Your task to perform on an android device: Search for a new lawnmower on Lowes.com Image 0: 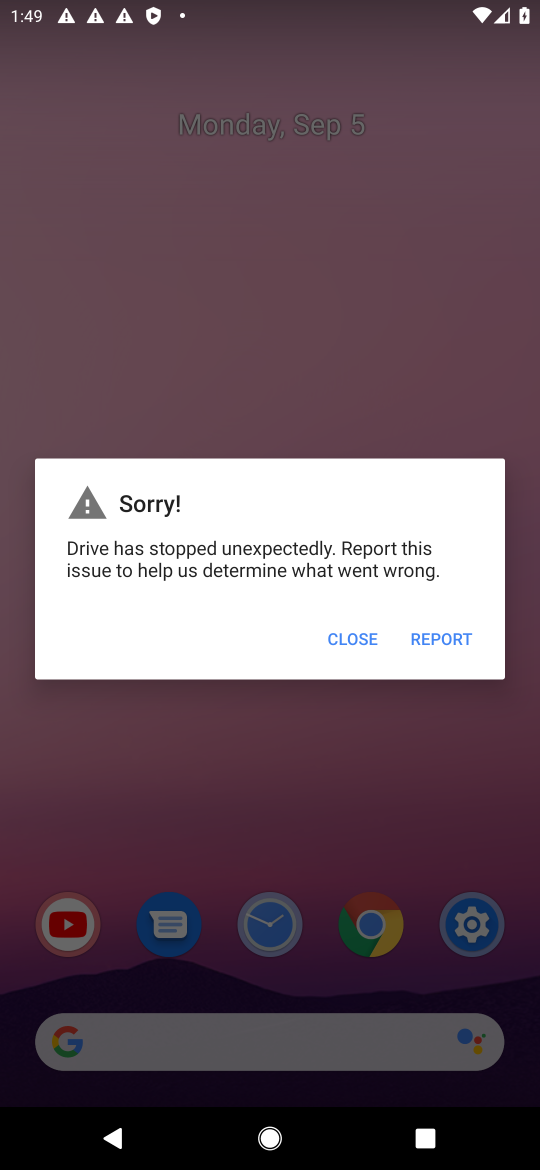
Step 0: click (348, 645)
Your task to perform on an android device: Search for a new lawnmower on Lowes.com Image 1: 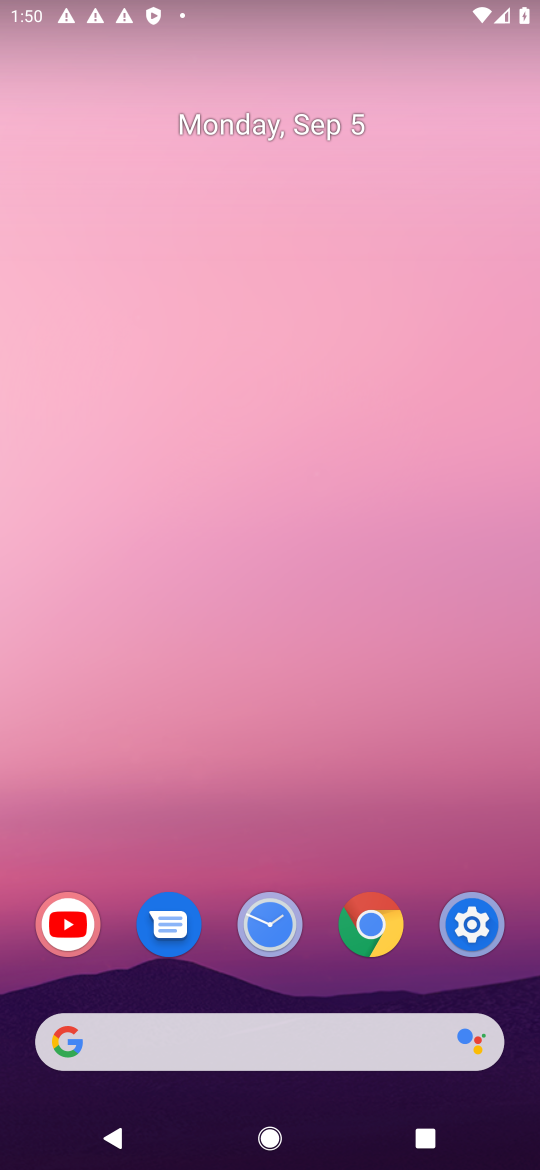
Step 1: drag from (331, 939) to (340, 119)
Your task to perform on an android device: Search for a new lawnmower on Lowes.com Image 2: 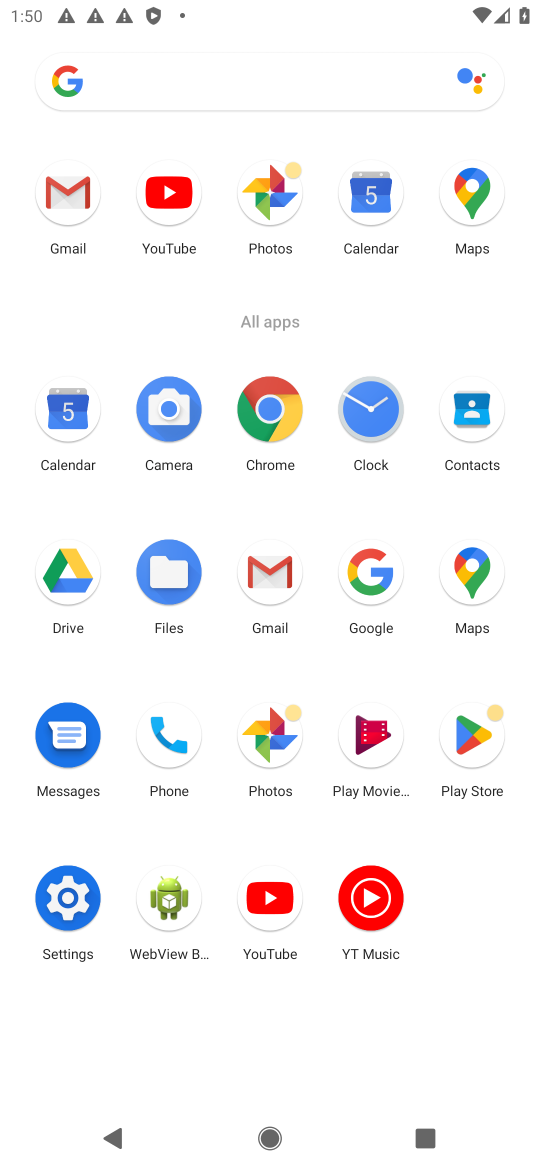
Step 2: click (252, 435)
Your task to perform on an android device: Search for a new lawnmower on Lowes.com Image 3: 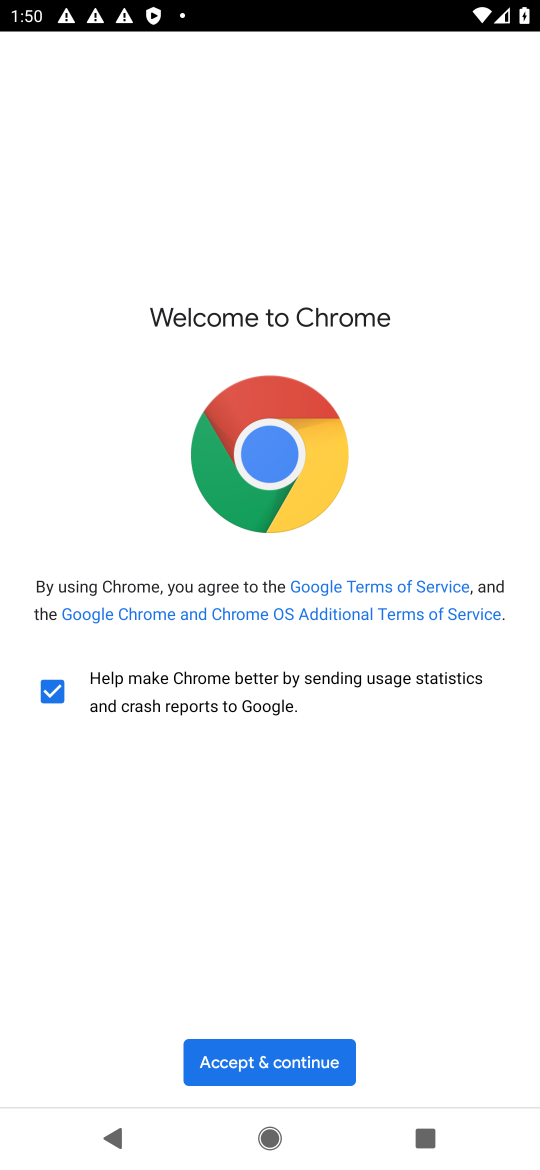
Step 3: click (261, 1071)
Your task to perform on an android device: Search for a new lawnmower on Lowes.com Image 4: 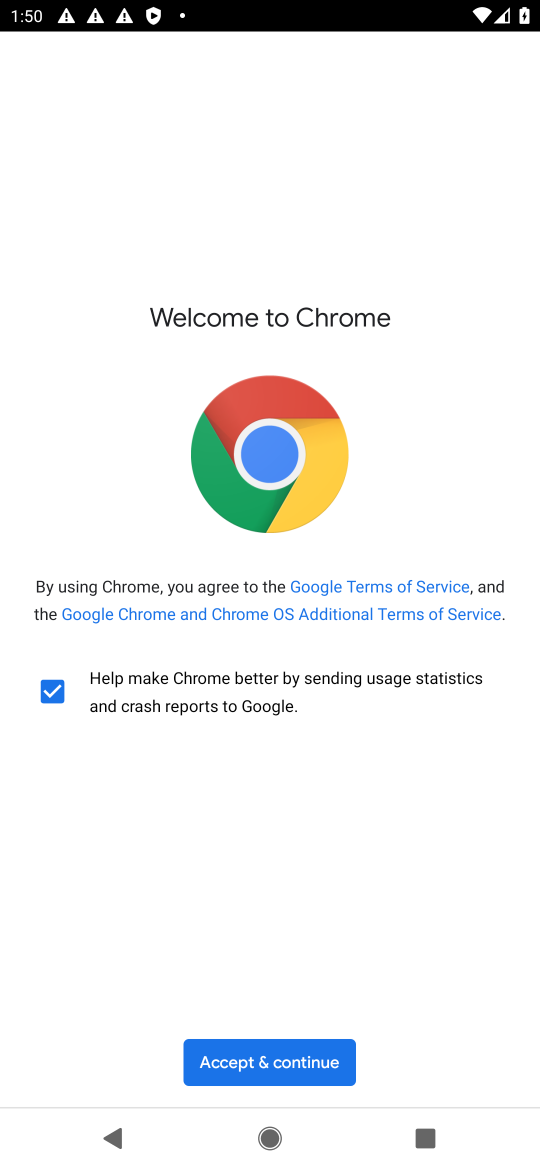
Step 4: click (261, 1071)
Your task to perform on an android device: Search for a new lawnmower on Lowes.com Image 5: 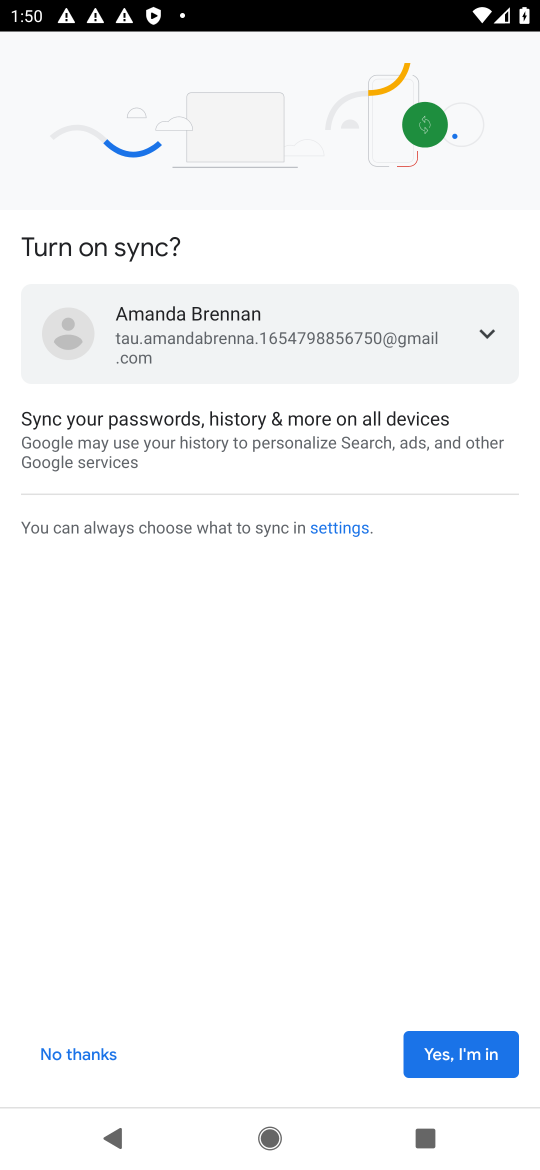
Step 5: click (457, 1060)
Your task to perform on an android device: Search for a new lawnmower on Lowes.com Image 6: 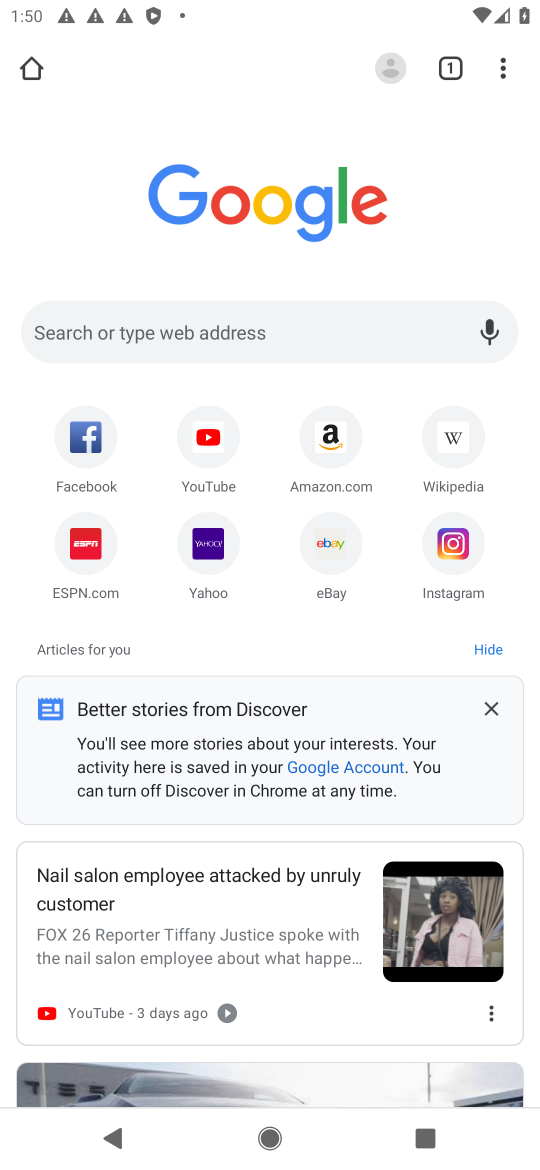
Step 6: click (243, 335)
Your task to perform on an android device: Search for a new lawnmower on Lowes.com Image 7: 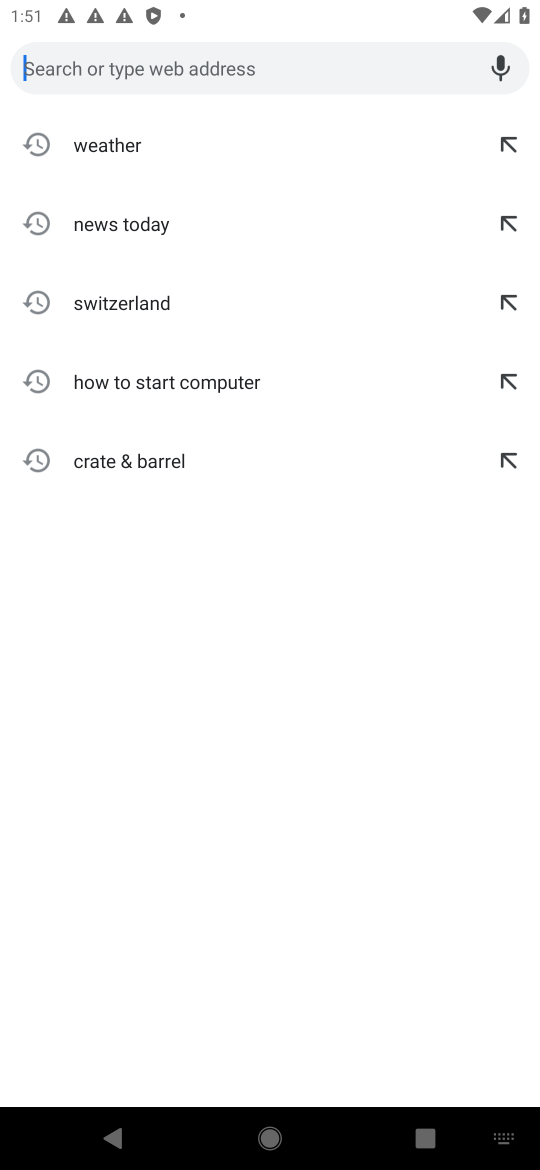
Step 7: type "lowes.com"
Your task to perform on an android device: Search for a new lawnmower on Lowes.com Image 8: 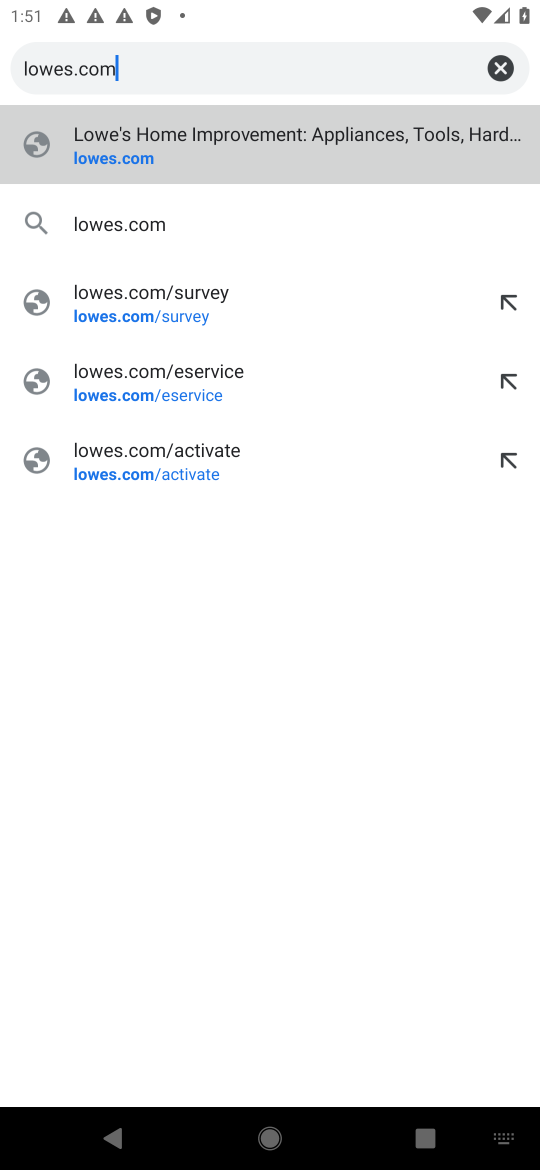
Step 8: click (235, 159)
Your task to perform on an android device: Search for a new lawnmower on Lowes.com Image 9: 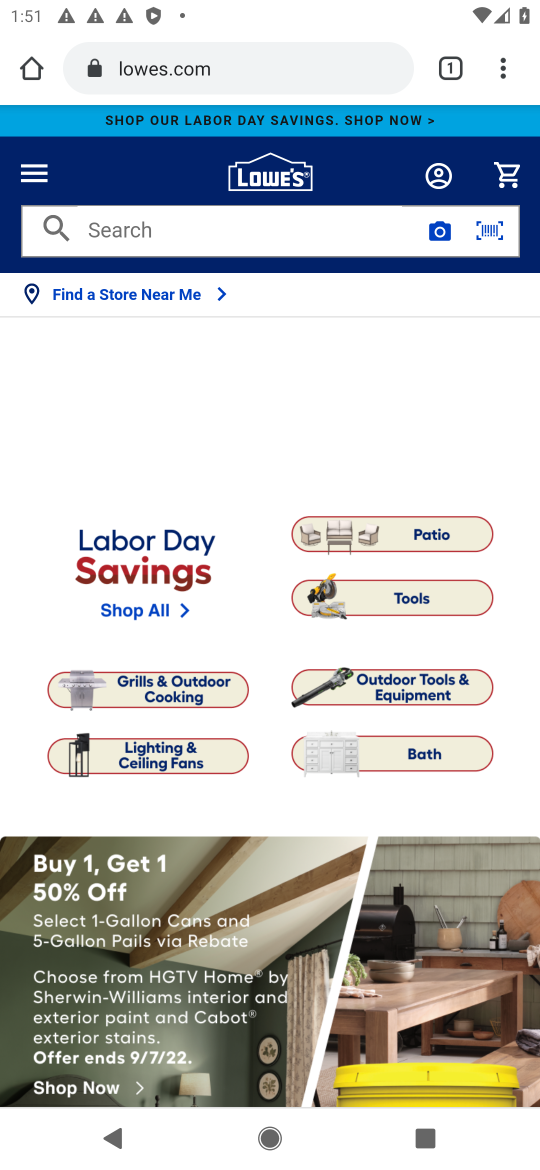
Step 9: click (312, 237)
Your task to perform on an android device: Search for a new lawnmower on Lowes.com Image 10: 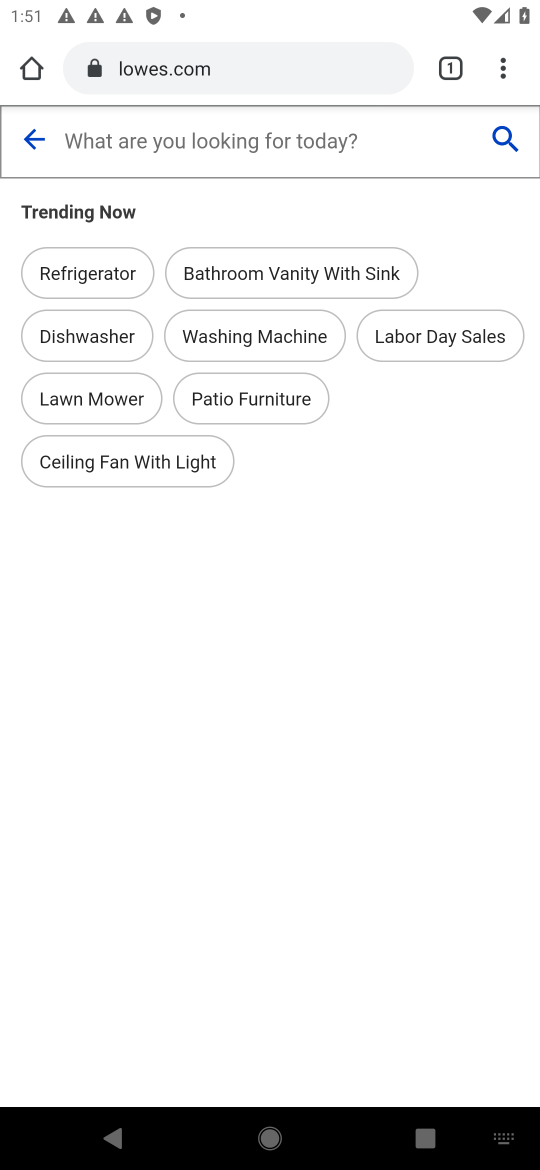
Step 10: type "new lawnmower"
Your task to perform on an android device: Search for a new lawnmower on Lowes.com Image 11: 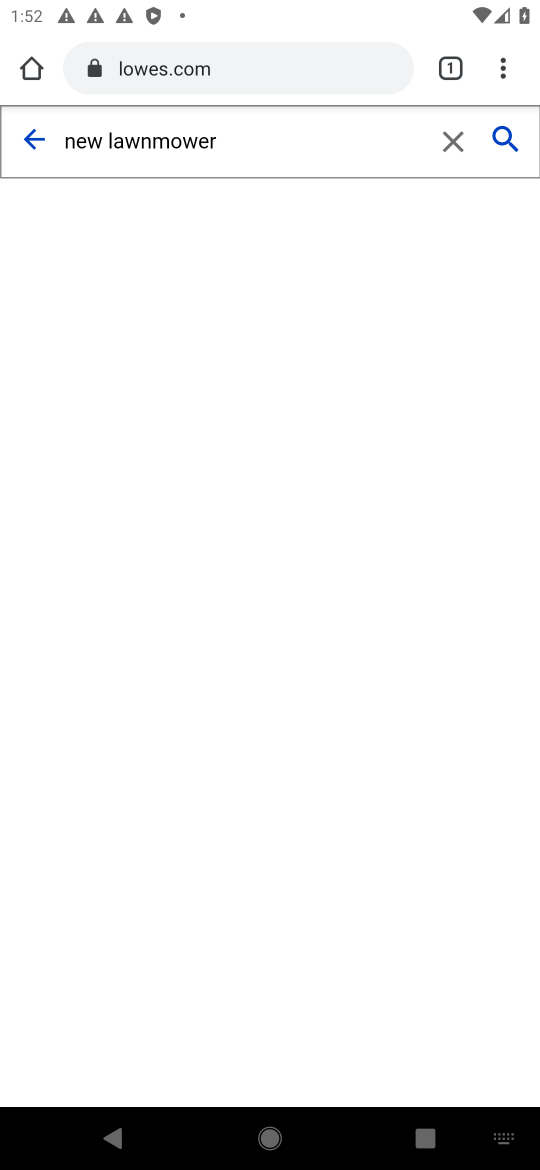
Step 11: click (510, 149)
Your task to perform on an android device: Search for a new lawnmower on Lowes.com Image 12: 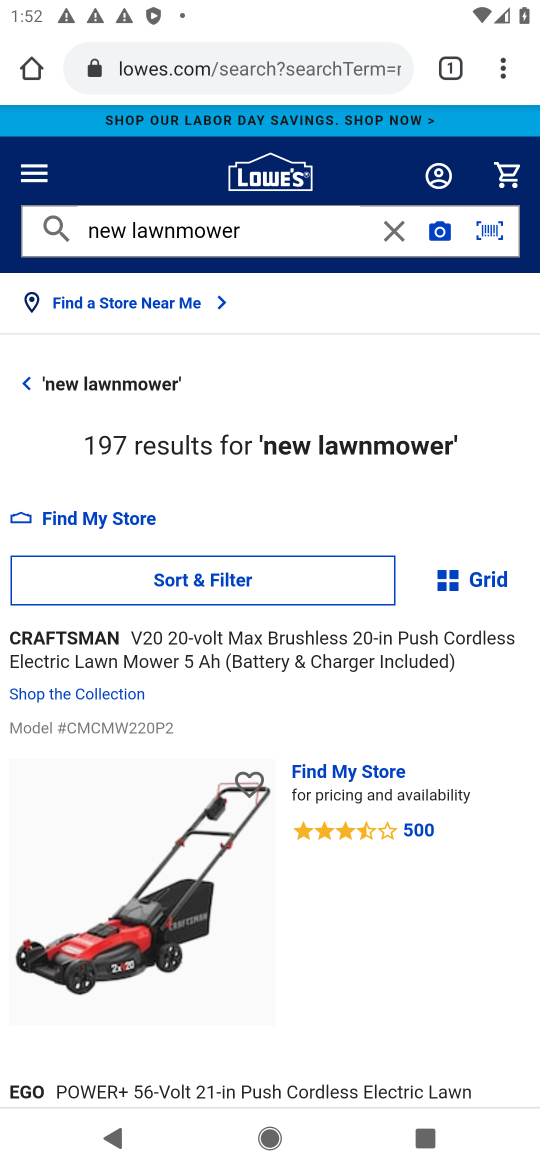
Step 12: task complete